Your task to perform on an android device: Open calendar and show me the second week of next month Image 0: 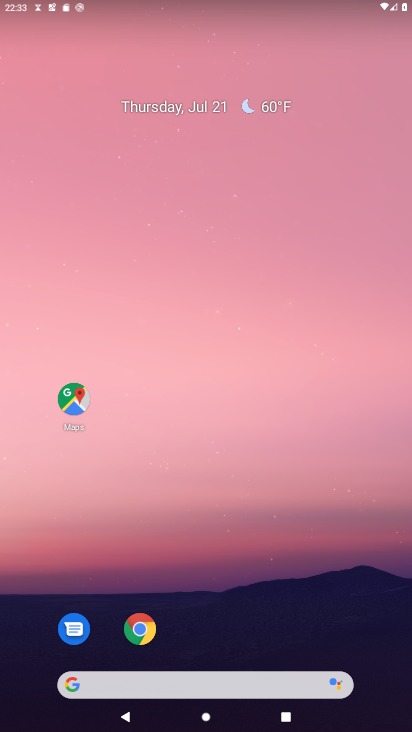
Step 0: drag from (329, 592) to (377, 151)
Your task to perform on an android device: Open calendar and show me the second week of next month Image 1: 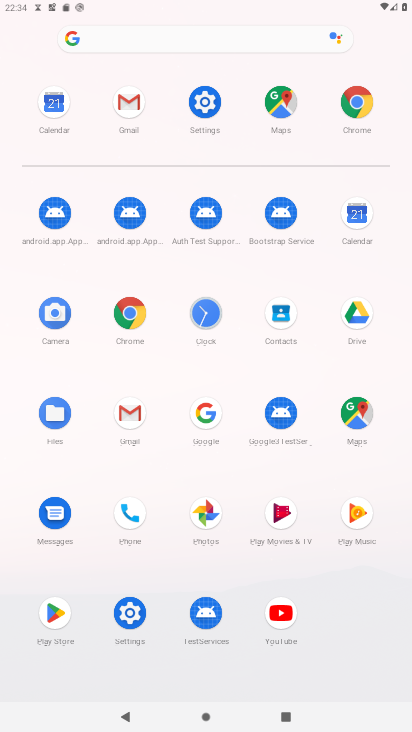
Step 1: click (363, 202)
Your task to perform on an android device: Open calendar and show me the second week of next month Image 2: 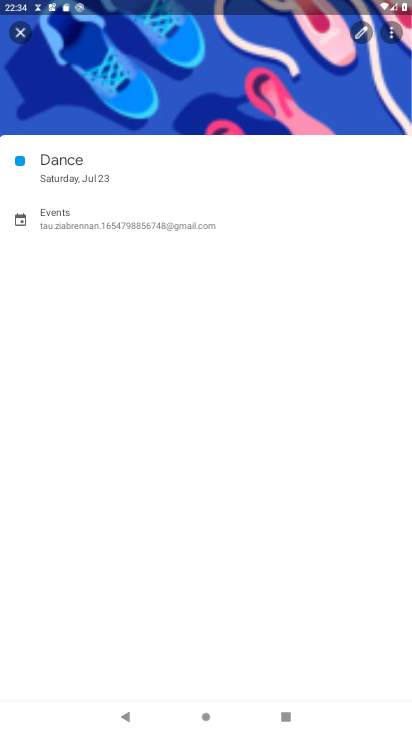
Step 2: click (21, 34)
Your task to perform on an android device: Open calendar and show me the second week of next month Image 3: 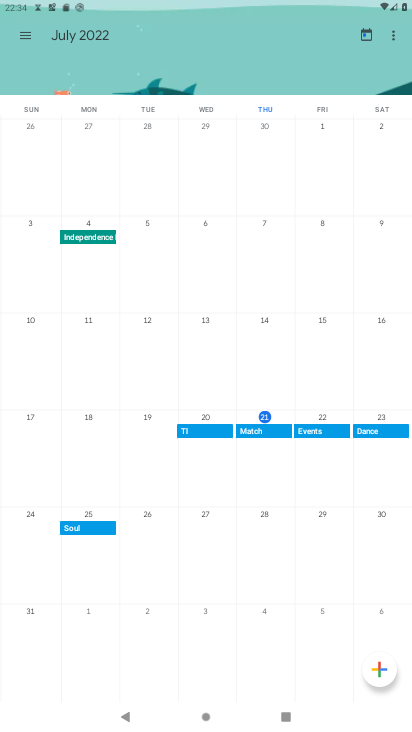
Step 3: click (21, 38)
Your task to perform on an android device: Open calendar and show me the second week of next month Image 4: 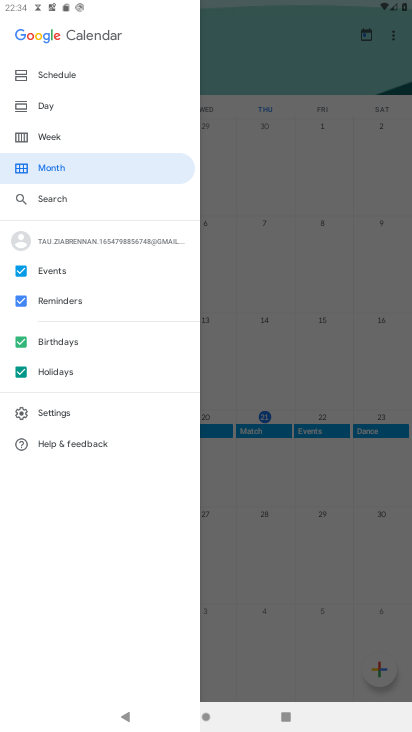
Step 4: click (79, 160)
Your task to perform on an android device: Open calendar and show me the second week of next month Image 5: 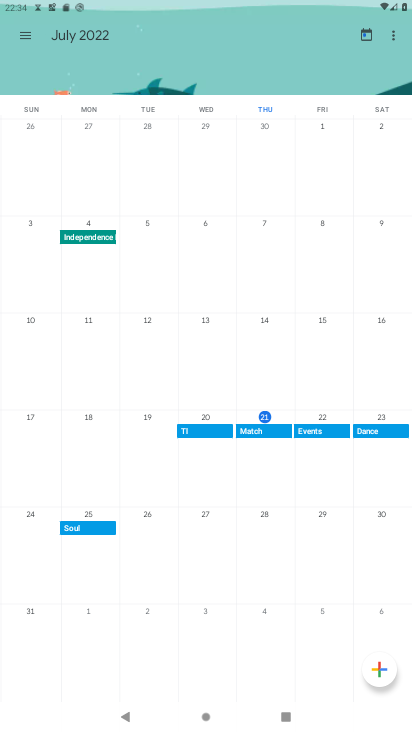
Step 5: drag from (368, 351) to (11, 275)
Your task to perform on an android device: Open calendar and show me the second week of next month Image 6: 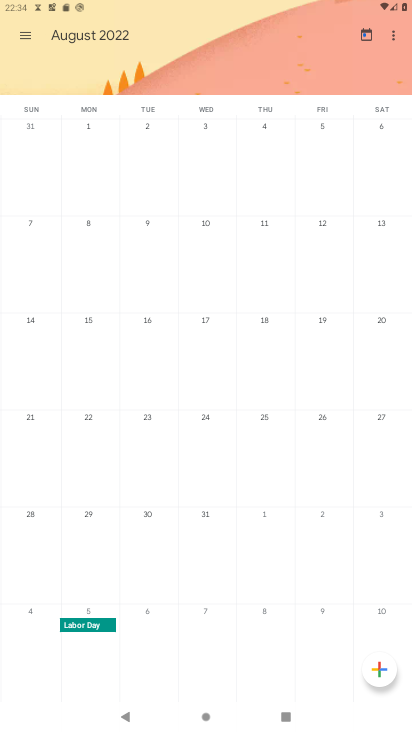
Step 6: click (21, 31)
Your task to perform on an android device: Open calendar and show me the second week of next month Image 7: 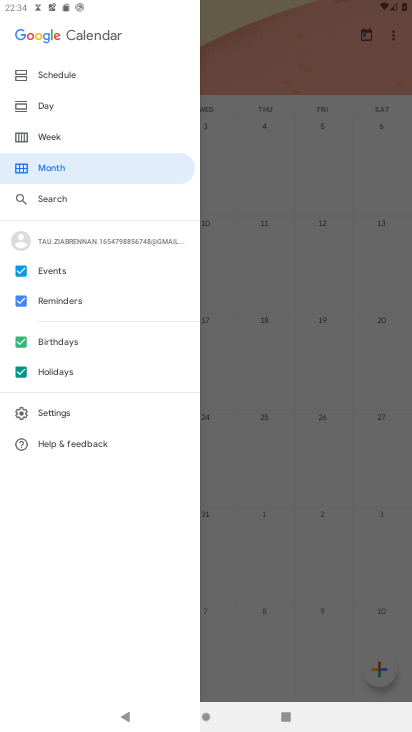
Step 7: click (65, 123)
Your task to perform on an android device: Open calendar and show me the second week of next month Image 8: 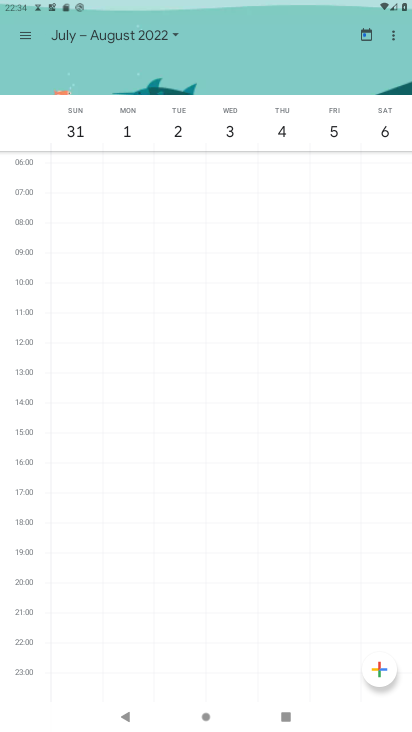
Step 8: task complete